Your task to perform on an android device: open app "DoorDash - Dasher" Image 0: 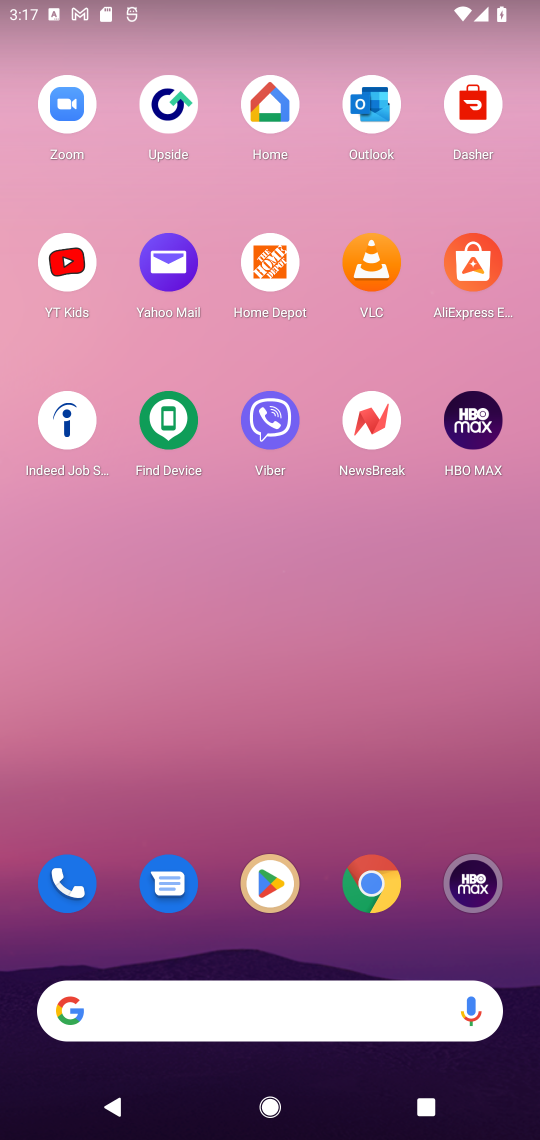
Step 0: drag from (259, 813) to (276, 245)
Your task to perform on an android device: open app "DoorDash - Dasher" Image 1: 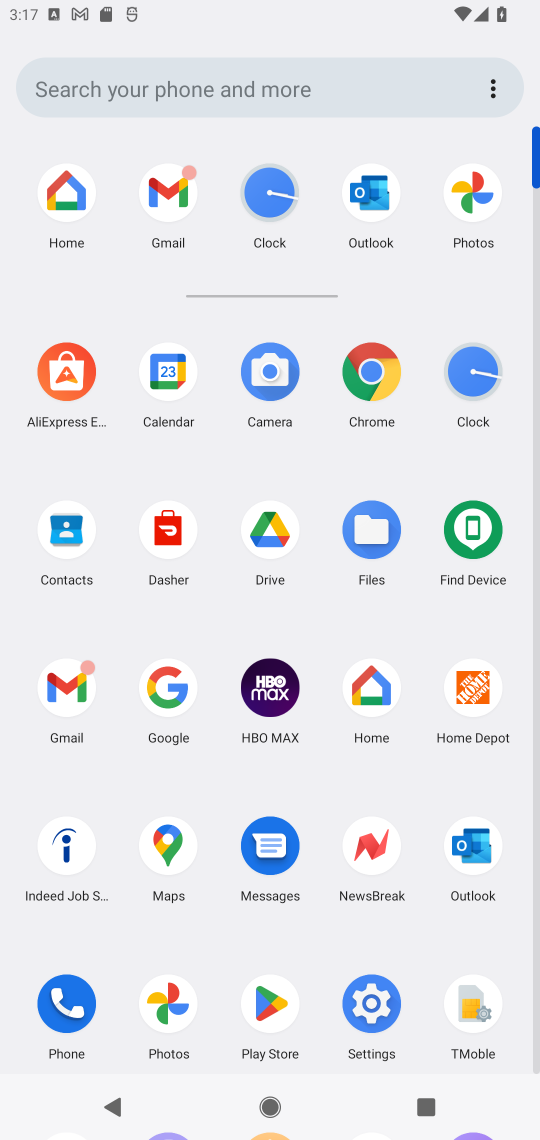
Step 1: click (268, 1017)
Your task to perform on an android device: open app "DoorDash - Dasher" Image 2: 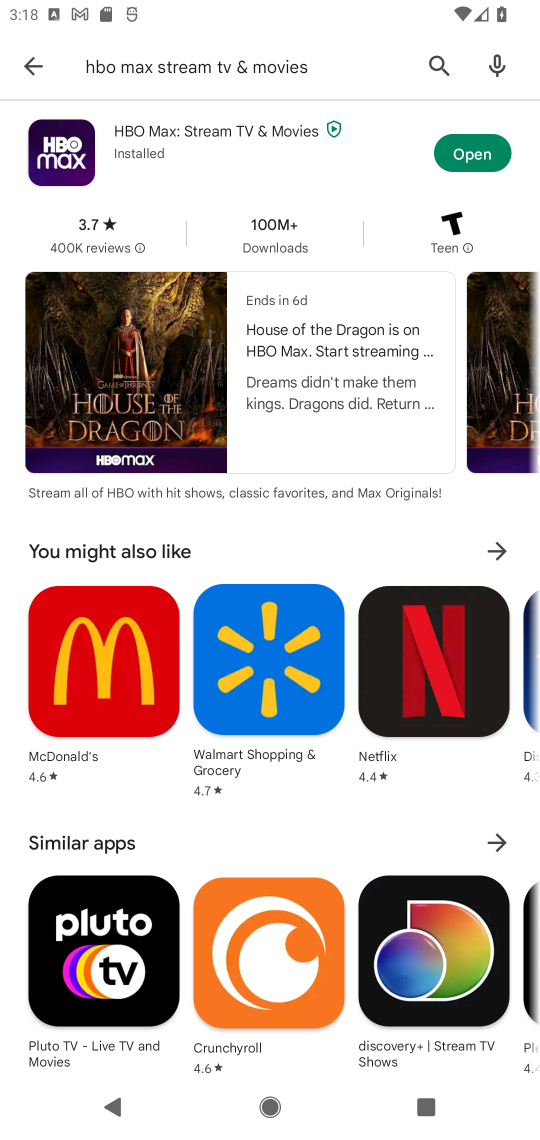
Step 2: click (468, 149)
Your task to perform on an android device: open app "DoorDash - Dasher" Image 3: 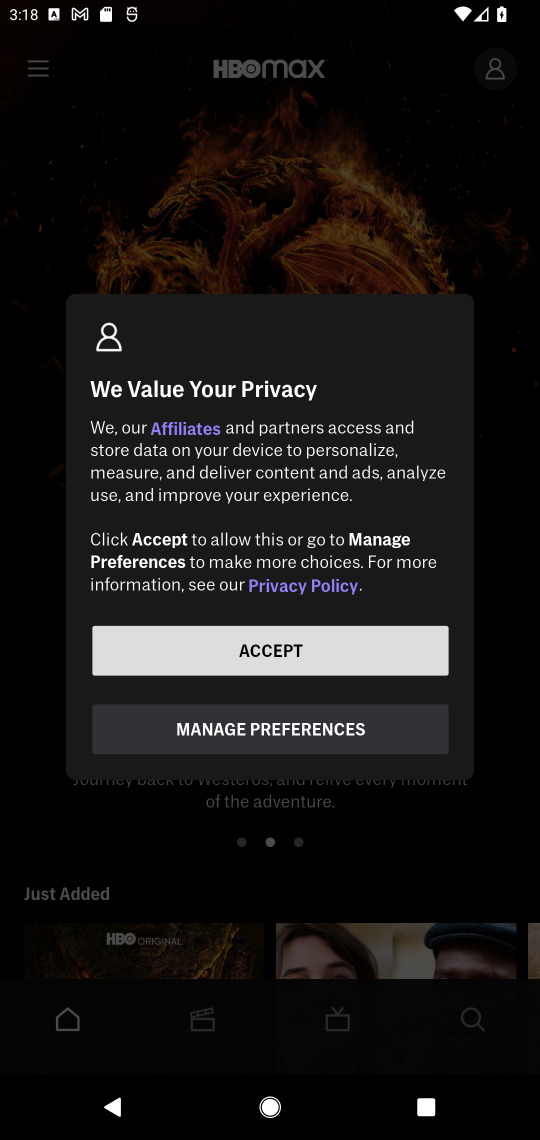
Step 3: task complete